Your task to perform on an android device: Go to notification settings Image 0: 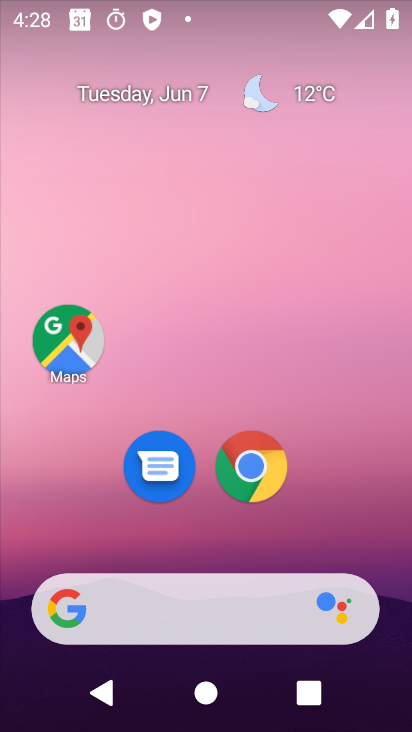
Step 0: drag from (385, 569) to (236, 138)
Your task to perform on an android device: Go to notification settings Image 1: 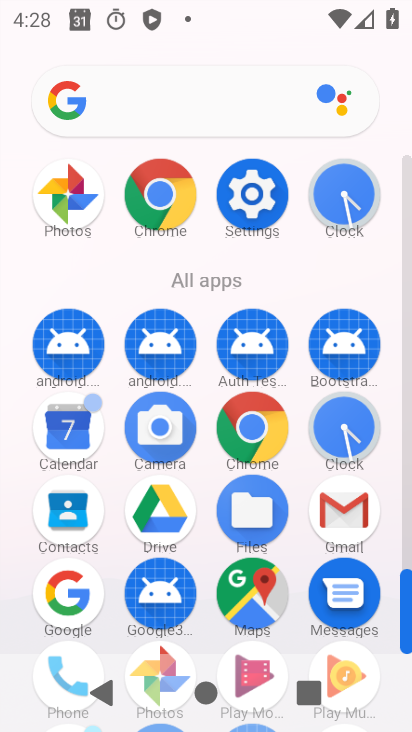
Step 1: click (252, 191)
Your task to perform on an android device: Go to notification settings Image 2: 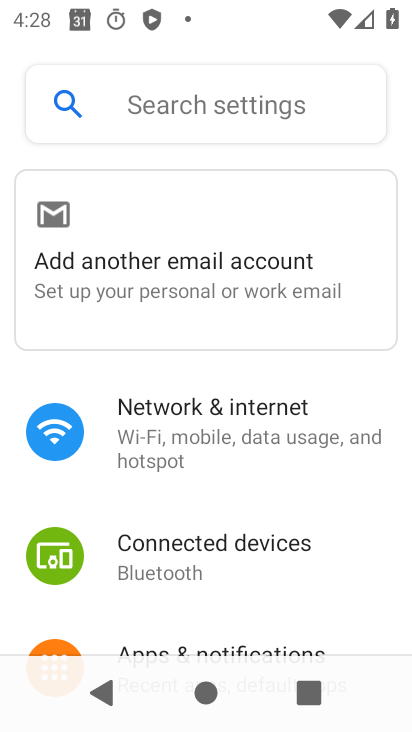
Step 2: drag from (284, 593) to (233, 386)
Your task to perform on an android device: Go to notification settings Image 3: 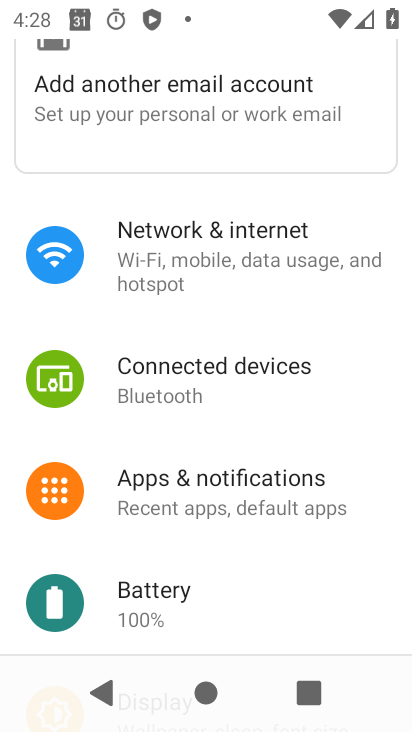
Step 3: click (248, 503)
Your task to perform on an android device: Go to notification settings Image 4: 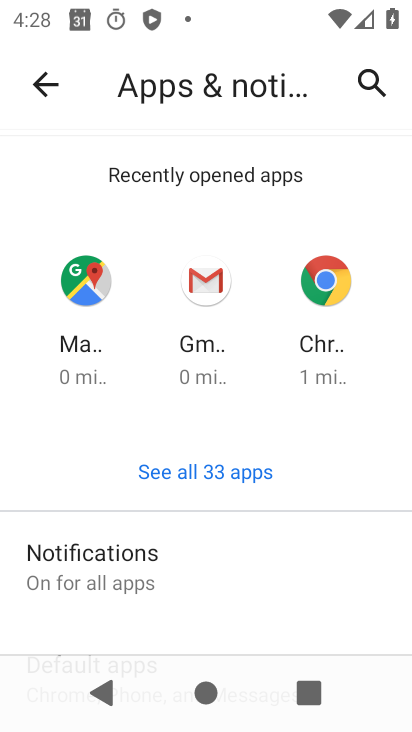
Step 4: drag from (285, 572) to (224, 266)
Your task to perform on an android device: Go to notification settings Image 5: 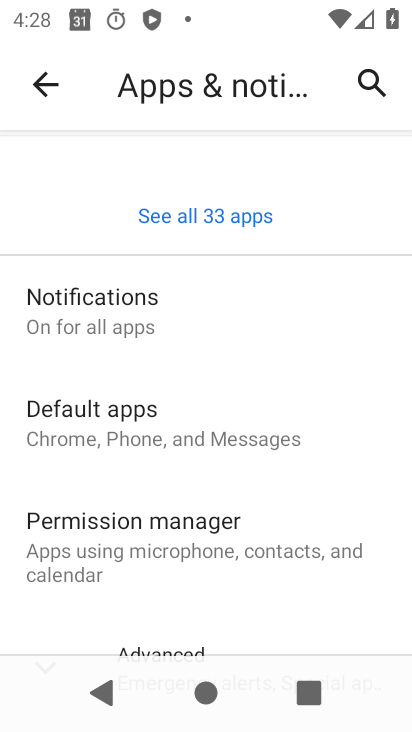
Step 5: click (222, 321)
Your task to perform on an android device: Go to notification settings Image 6: 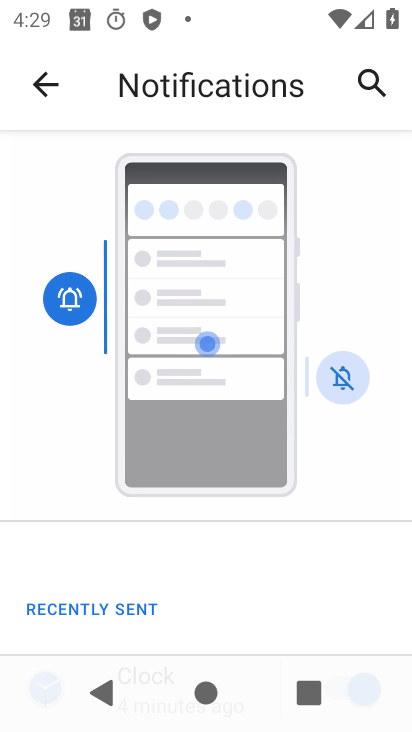
Step 6: task complete